Your task to perform on an android device: Search for pizza restaurants on Maps Image 0: 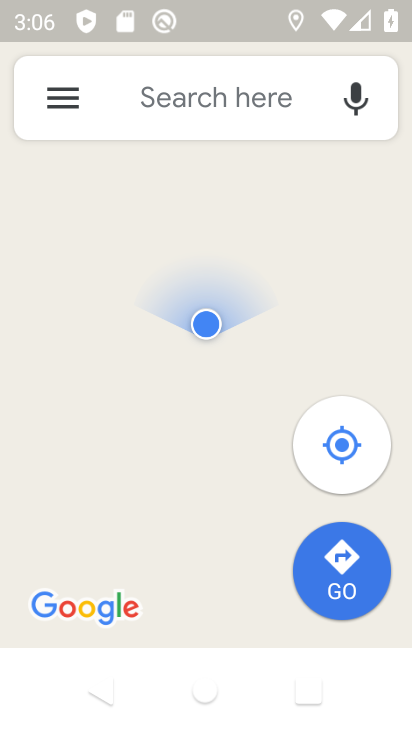
Step 0: press home button
Your task to perform on an android device: Search for pizza restaurants on Maps Image 1: 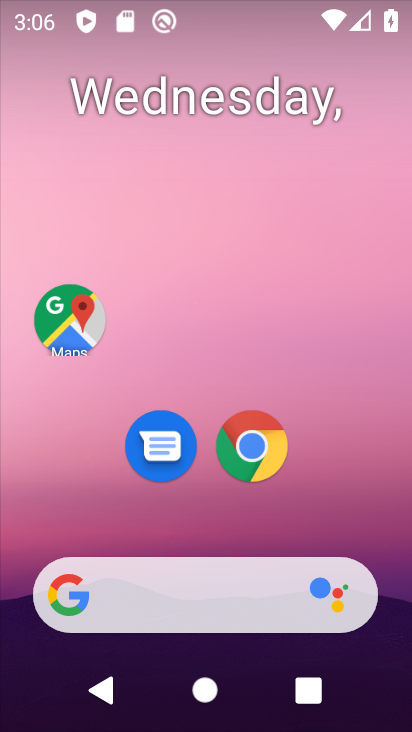
Step 1: click (75, 323)
Your task to perform on an android device: Search for pizza restaurants on Maps Image 2: 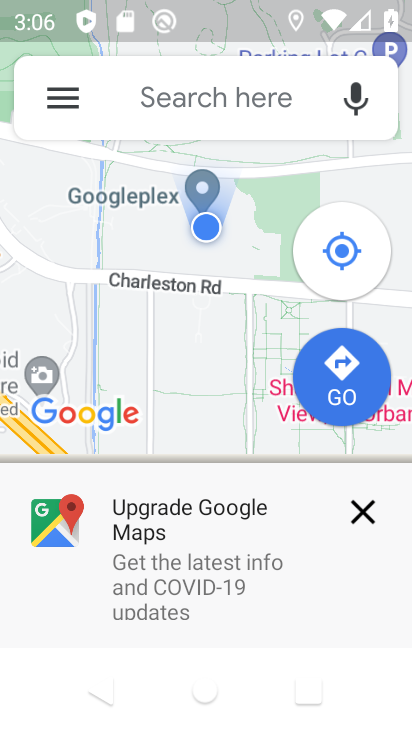
Step 2: click (174, 102)
Your task to perform on an android device: Search for pizza restaurants on Maps Image 3: 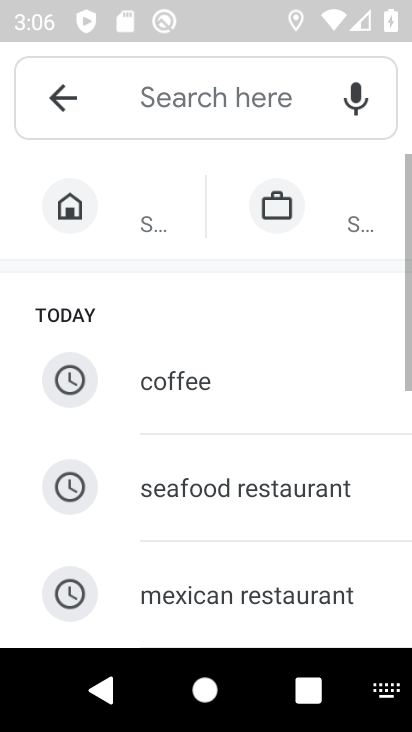
Step 3: drag from (240, 494) to (214, 158)
Your task to perform on an android device: Search for pizza restaurants on Maps Image 4: 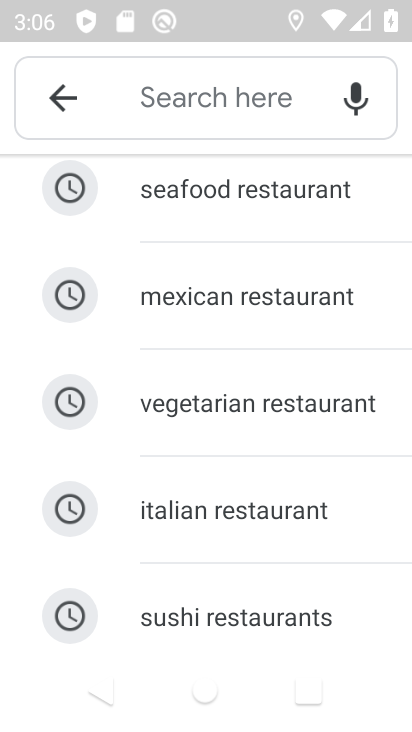
Step 4: drag from (213, 569) to (252, 710)
Your task to perform on an android device: Search for pizza restaurants on Maps Image 5: 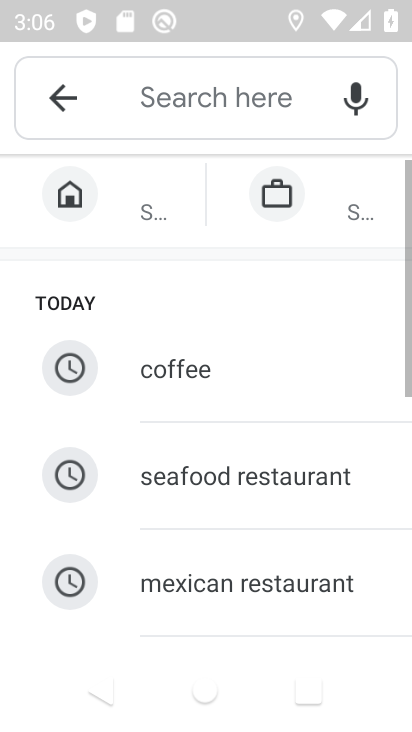
Step 5: click (186, 98)
Your task to perform on an android device: Search for pizza restaurants on Maps Image 6: 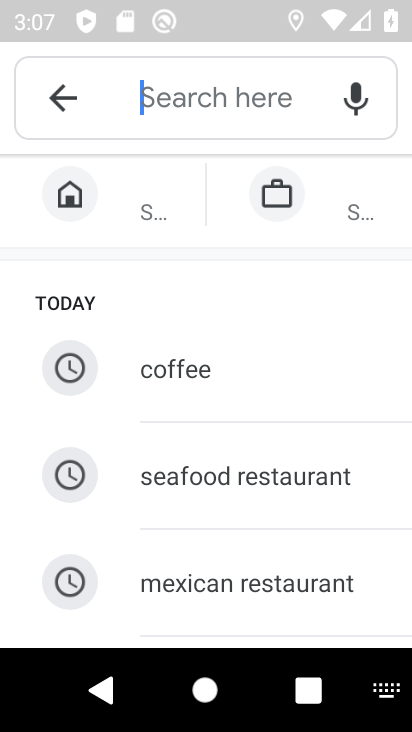
Step 6: type "pizza restaurents"
Your task to perform on an android device: Search for pizza restaurants on Maps Image 7: 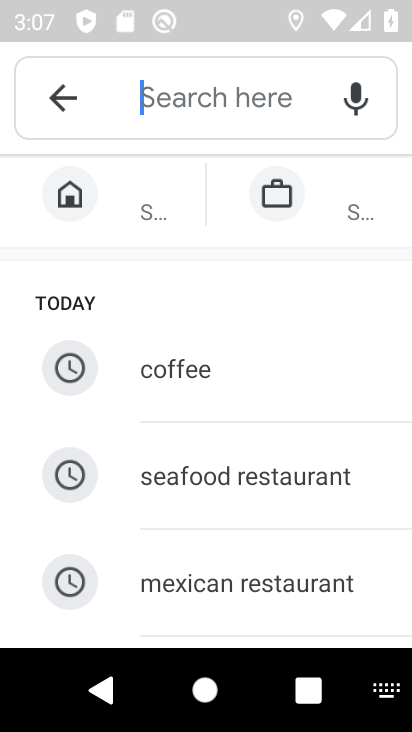
Step 7: click (262, 292)
Your task to perform on an android device: Search for pizza restaurants on Maps Image 8: 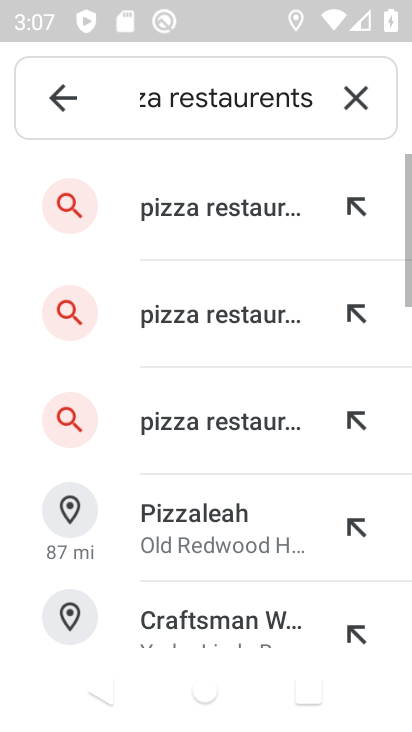
Step 8: click (203, 217)
Your task to perform on an android device: Search for pizza restaurants on Maps Image 9: 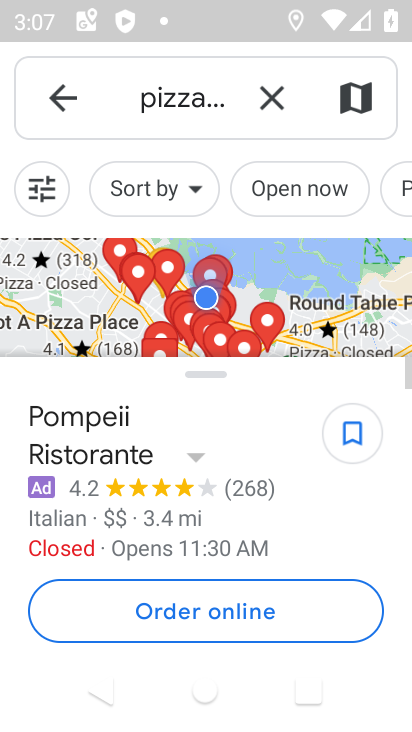
Step 9: task complete